Your task to perform on an android device: Open calendar and show me the first week of next month Image 0: 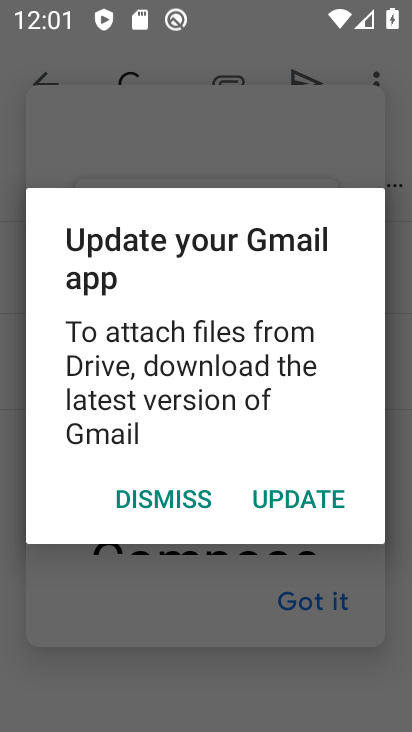
Step 0: press home button
Your task to perform on an android device: Open calendar and show me the first week of next month Image 1: 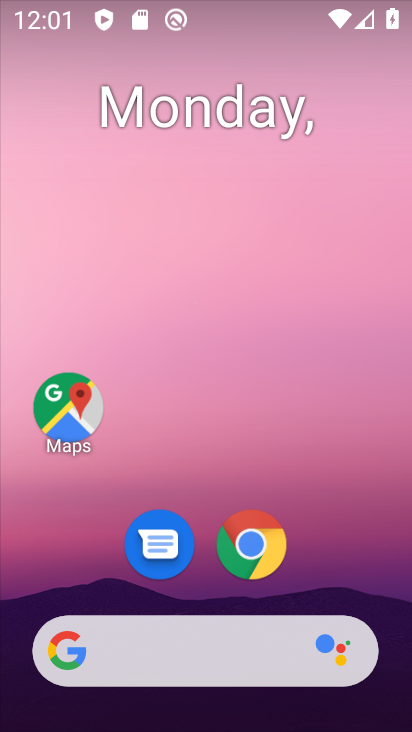
Step 1: drag from (308, 628) to (307, 2)
Your task to perform on an android device: Open calendar and show me the first week of next month Image 2: 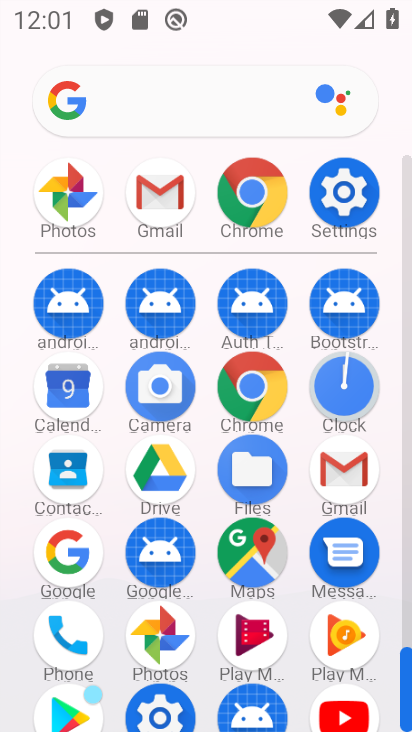
Step 2: click (79, 399)
Your task to perform on an android device: Open calendar and show me the first week of next month Image 3: 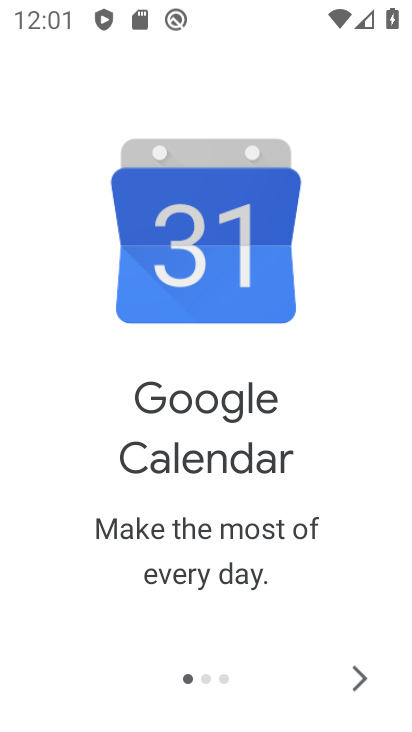
Step 3: click (364, 677)
Your task to perform on an android device: Open calendar and show me the first week of next month Image 4: 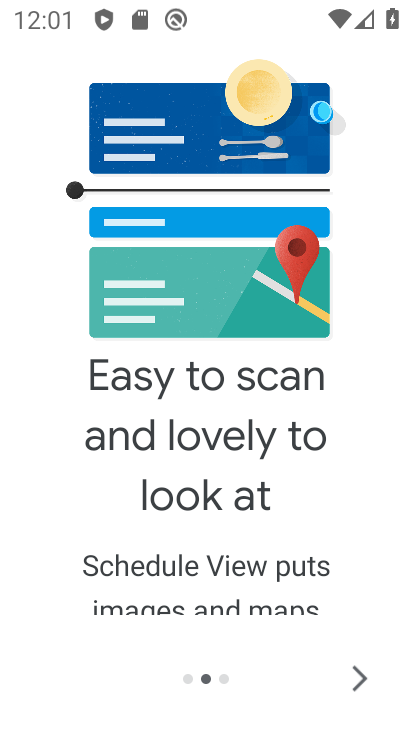
Step 4: click (364, 677)
Your task to perform on an android device: Open calendar and show me the first week of next month Image 5: 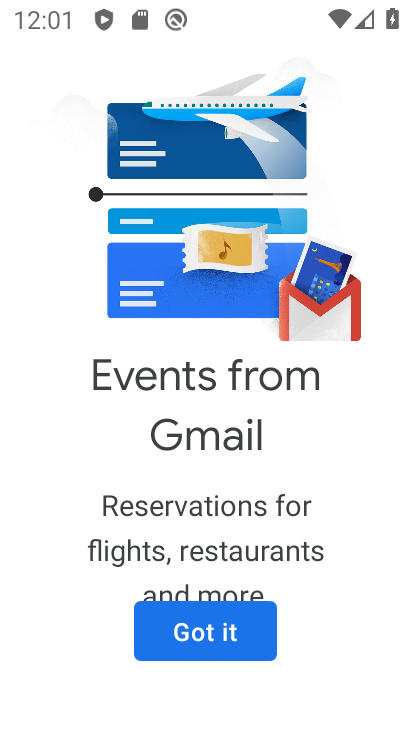
Step 5: click (219, 624)
Your task to perform on an android device: Open calendar and show me the first week of next month Image 6: 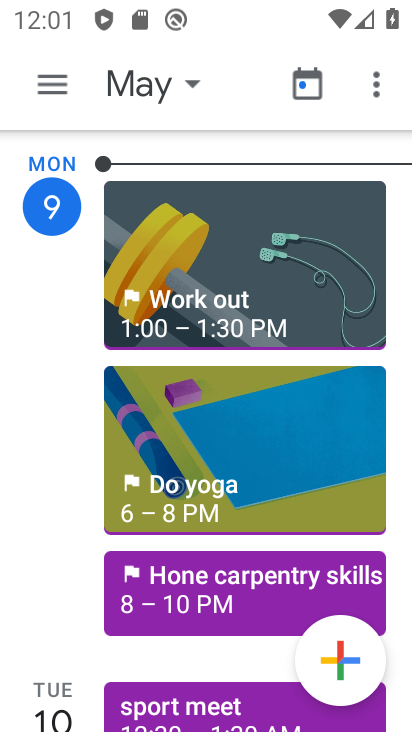
Step 6: click (185, 81)
Your task to perform on an android device: Open calendar and show me the first week of next month Image 7: 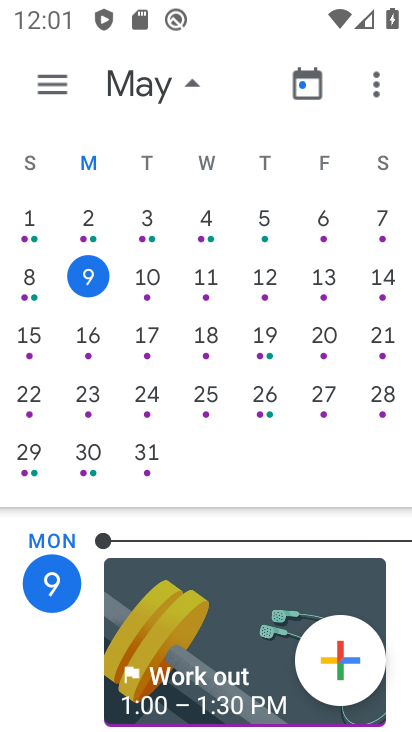
Step 7: drag from (366, 357) to (20, 383)
Your task to perform on an android device: Open calendar and show me the first week of next month Image 8: 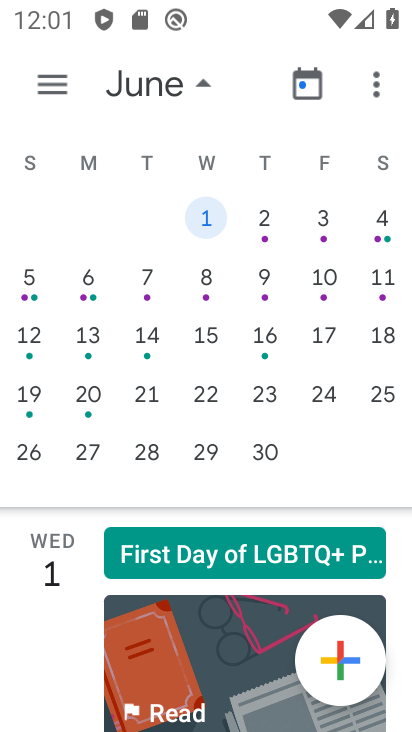
Step 8: click (318, 224)
Your task to perform on an android device: Open calendar and show me the first week of next month Image 9: 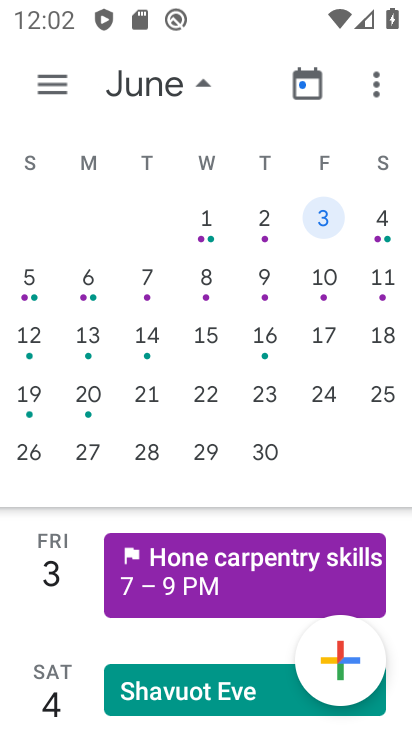
Step 9: task complete